Your task to perform on an android device: turn pop-ups off in chrome Image 0: 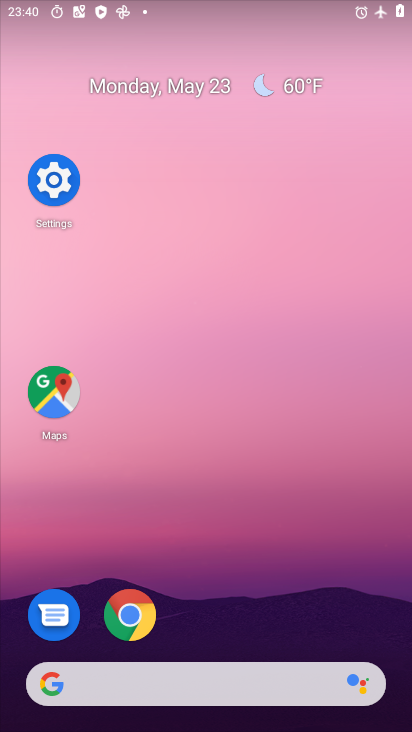
Step 0: click (134, 617)
Your task to perform on an android device: turn pop-ups off in chrome Image 1: 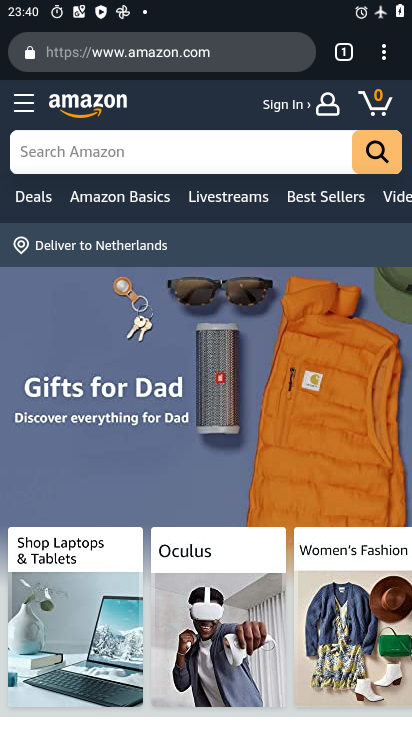
Step 1: click (378, 56)
Your task to perform on an android device: turn pop-ups off in chrome Image 2: 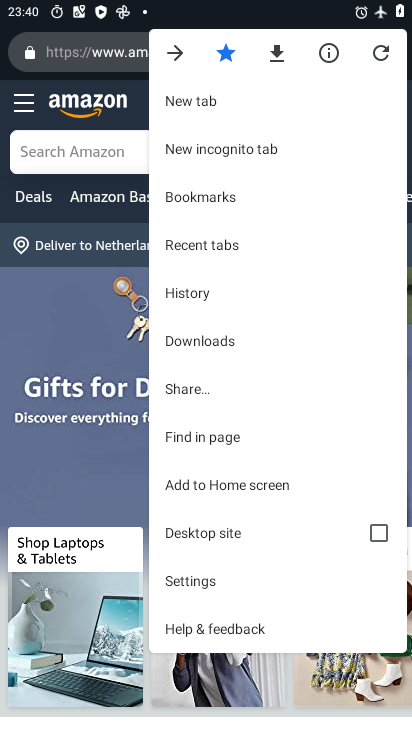
Step 2: click (209, 580)
Your task to perform on an android device: turn pop-ups off in chrome Image 3: 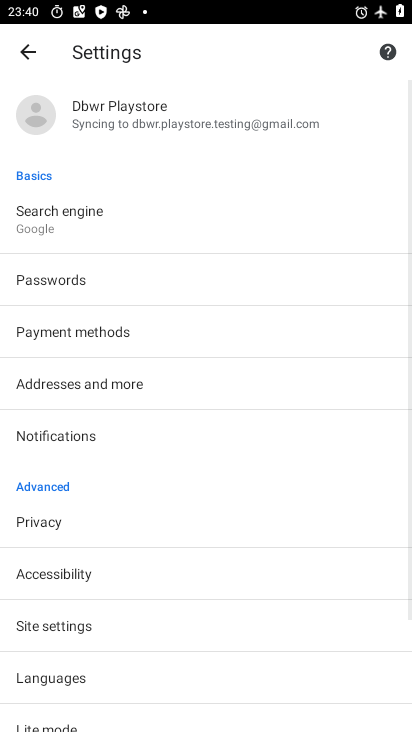
Step 3: click (95, 631)
Your task to perform on an android device: turn pop-ups off in chrome Image 4: 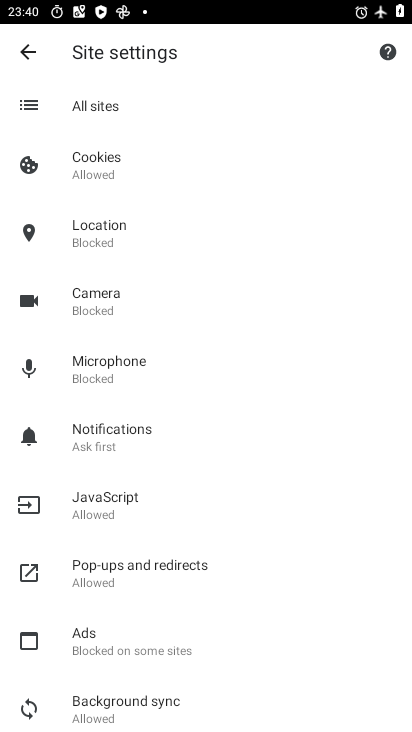
Step 4: click (143, 574)
Your task to perform on an android device: turn pop-ups off in chrome Image 5: 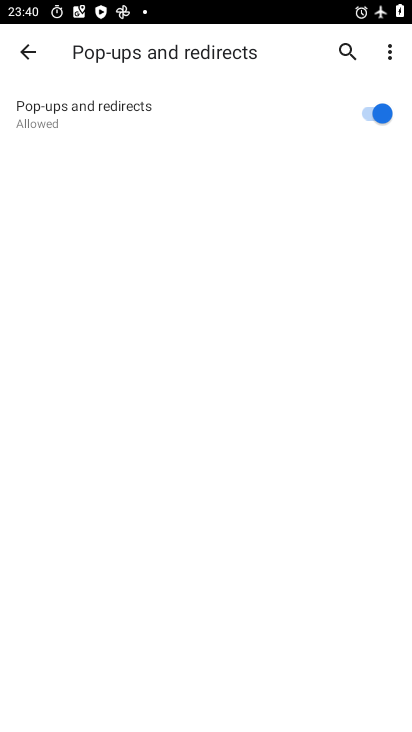
Step 5: click (375, 112)
Your task to perform on an android device: turn pop-ups off in chrome Image 6: 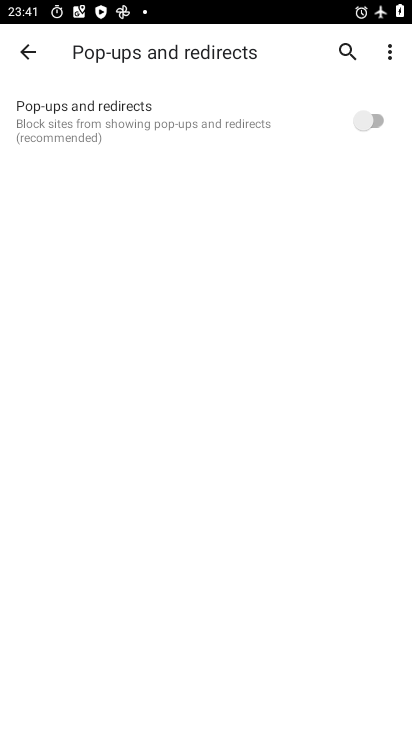
Step 6: task complete